Your task to perform on an android device: Go to privacy settings Image 0: 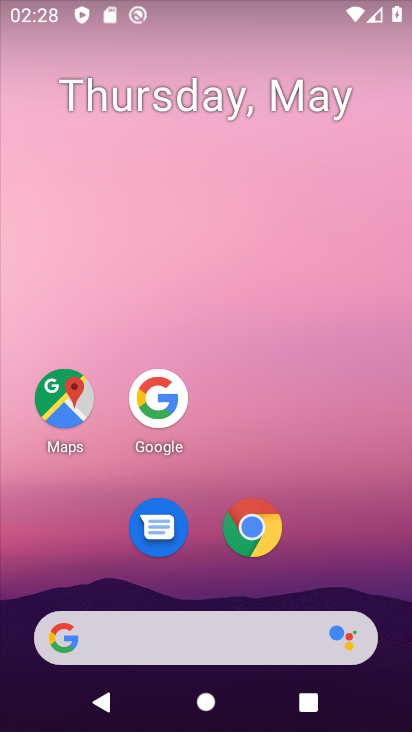
Step 0: drag from (190, 560) to (213, 112)
Your task to perform on an android device: Go to privacy settings Image 1: 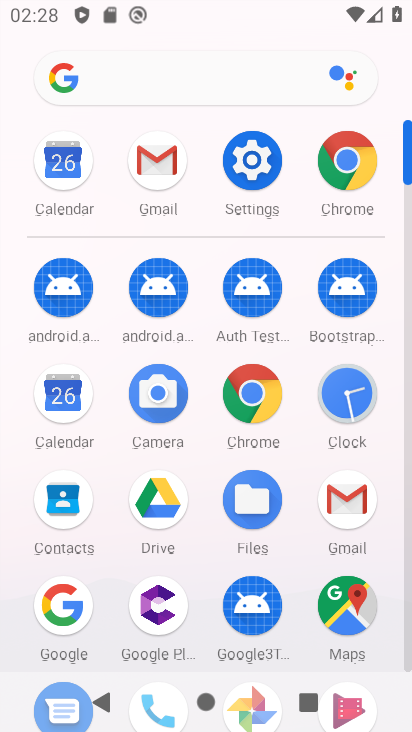
Step 1: click (265, 172)
Your task to perform on an android device: Go to privacy settings Image 2: 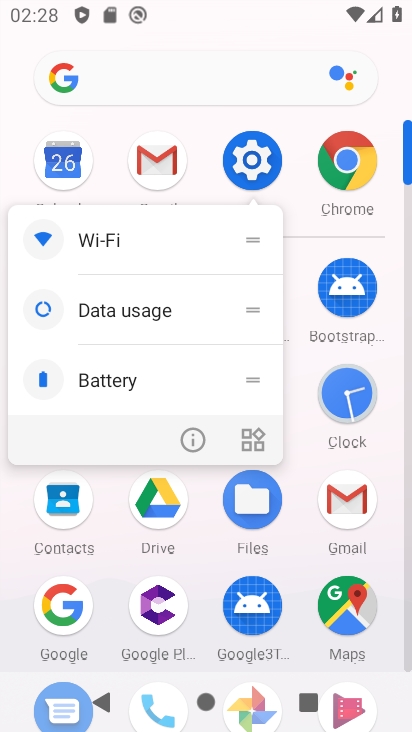
Step 2: click (193, 431)
Your task to perform on an android device: Go to privacy settings Image 3: 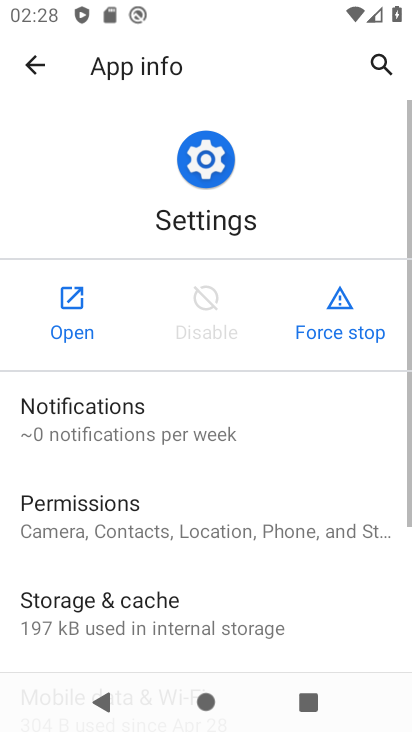
Step 3: click (58, 308)
Your task to perform on an android device: Go to privacy settings Image 4: 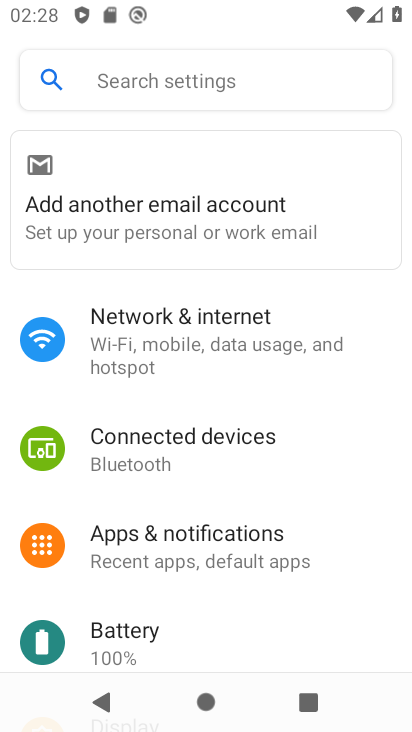
Step 4: drag from (189, 603) to (241, 10)
Your task to perform on an android device: Go to privacy settings Image 5: 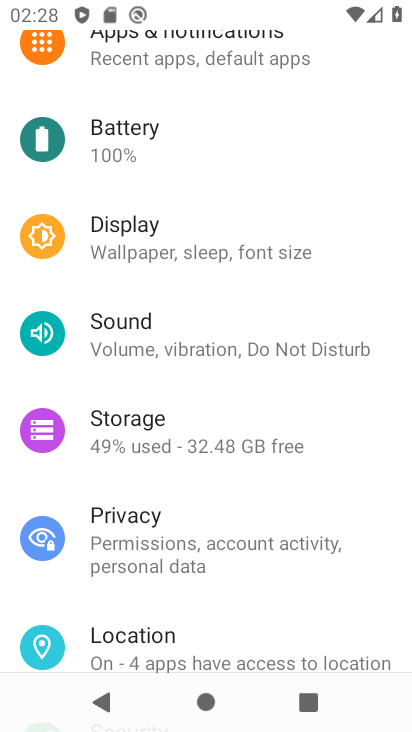
Step 5: drag from (221, 544) to (268, 200)
Your task to perform on an android device: Go to privacy settings Image 6: 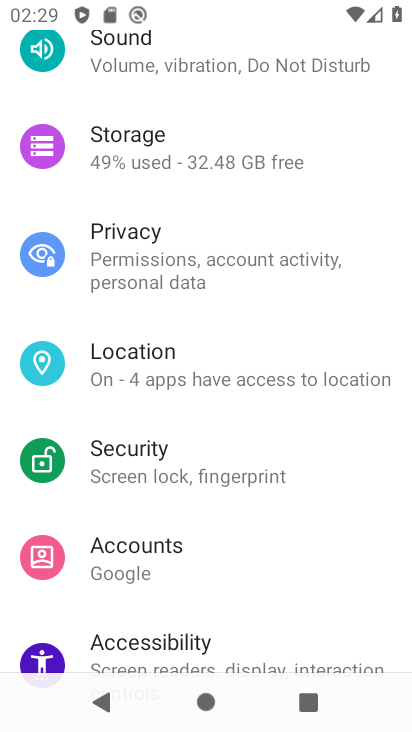
Step 6: drag from (206, 582) to (237, 224)
Your task to perform on an android device: Go to privacy settings Image 7: 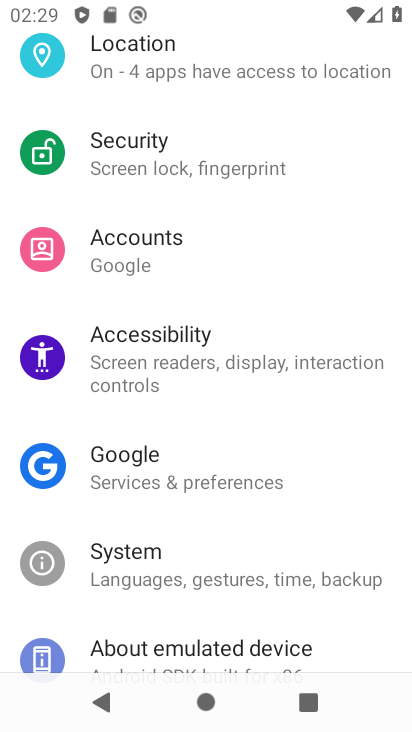
Step 7: drag from (219, 135) to (263, 568)
Your task to perform on an android device: Go to privacy settings Image 8: 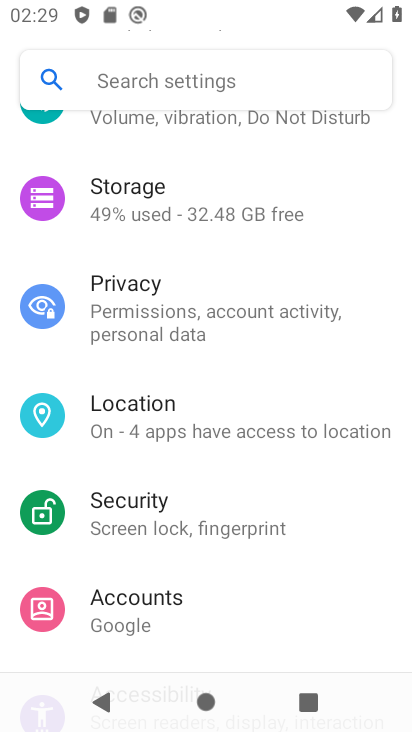
Step 8: click (168, 286)
Your task to perform on an android device: Go to privacy settings Image 9: 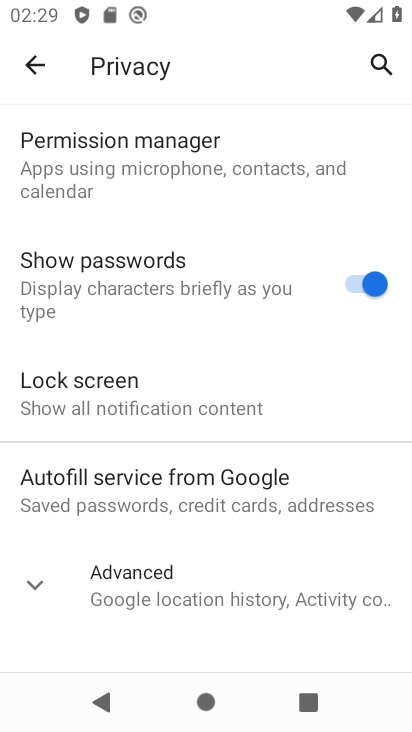
Step 9: task complete